Your task to perform on an android device: Open eBay Image 0: 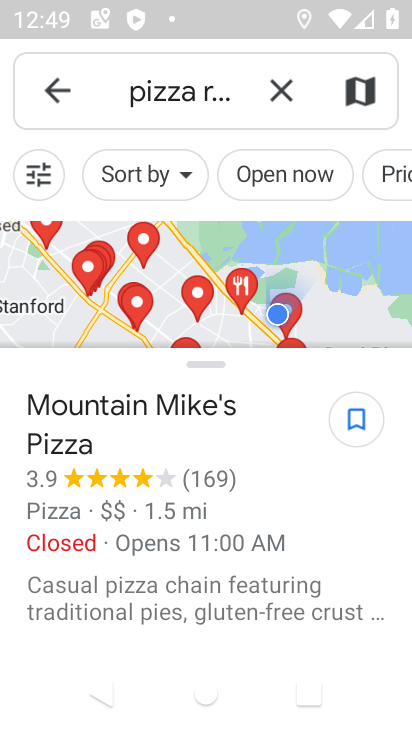
Step 0: press home button
Your task to perform on an android device: Open eBay Image 1: 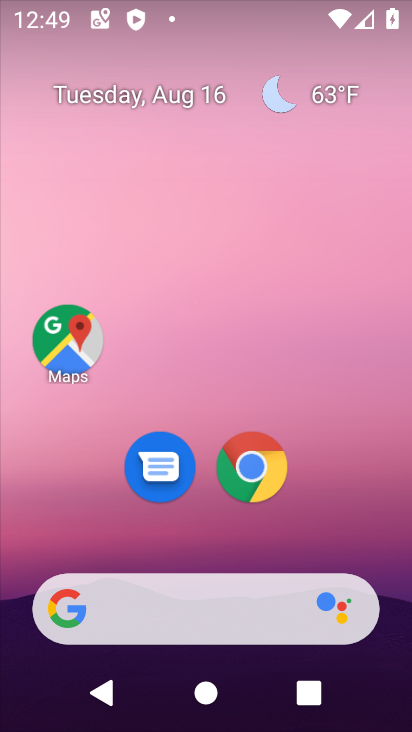
Step 1: drag from (379, 546) to (387, 115)
Your task to perform on an android device: Open eBay Image 2: 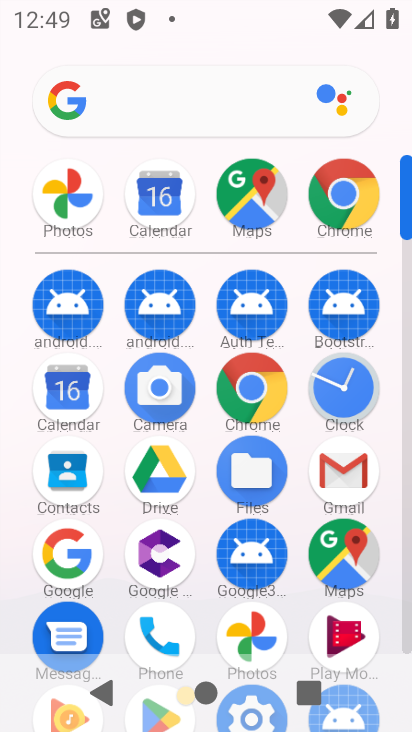
Step 2: click (347, 195)
Your task to perform on an android device: Open eBay Image 3: 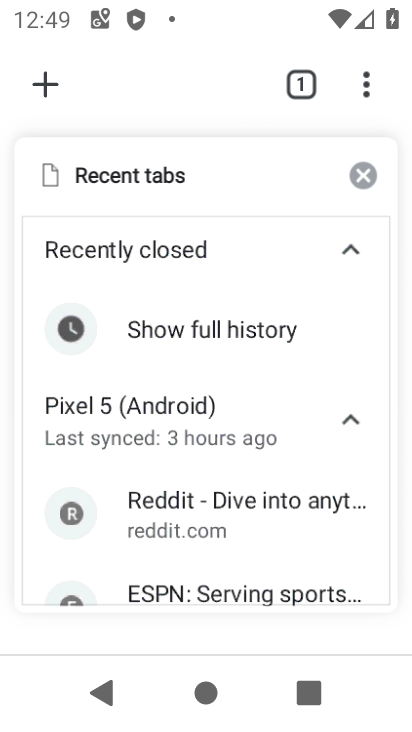
Step 3: press back button
Your task to perform on an android device: Open eBay Image 4: 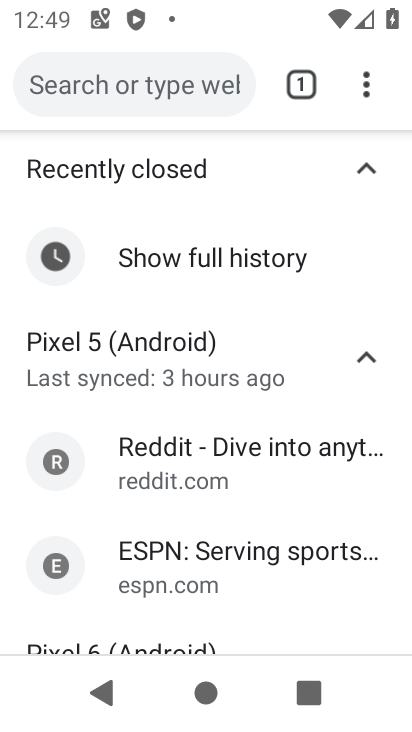
Step 4: click (171, 91)
Your task to perform on an android device: Open eBay Image 5: 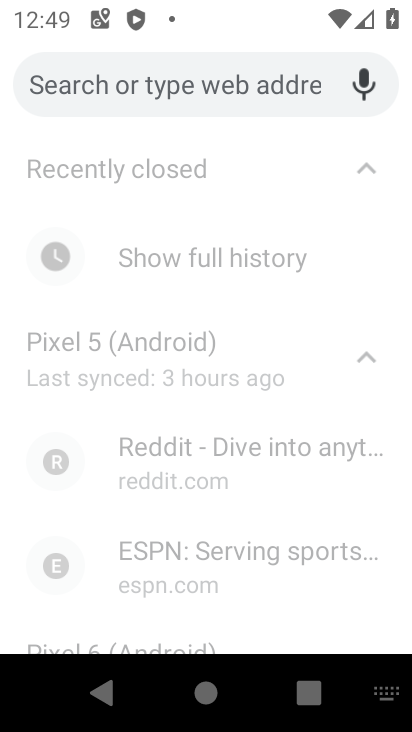
Step 5: type "ebay"
Your task to perform on an android device: Open eBay Image 6: 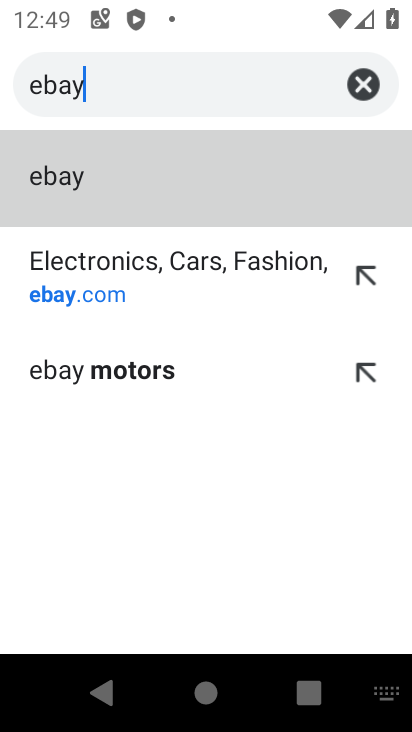
Step 6: click (352, 189)
Your task to perform on an android device: Open eBay Image 7: 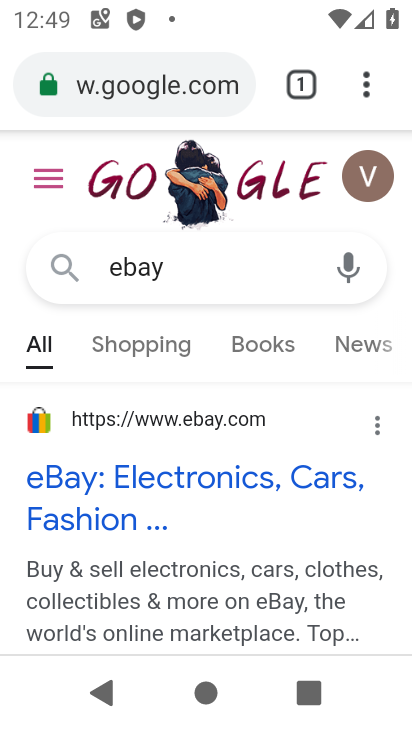
Step 7: task complete